Your task to perform on an android device: uninstall "Duolingo: language lessons" Image 0: 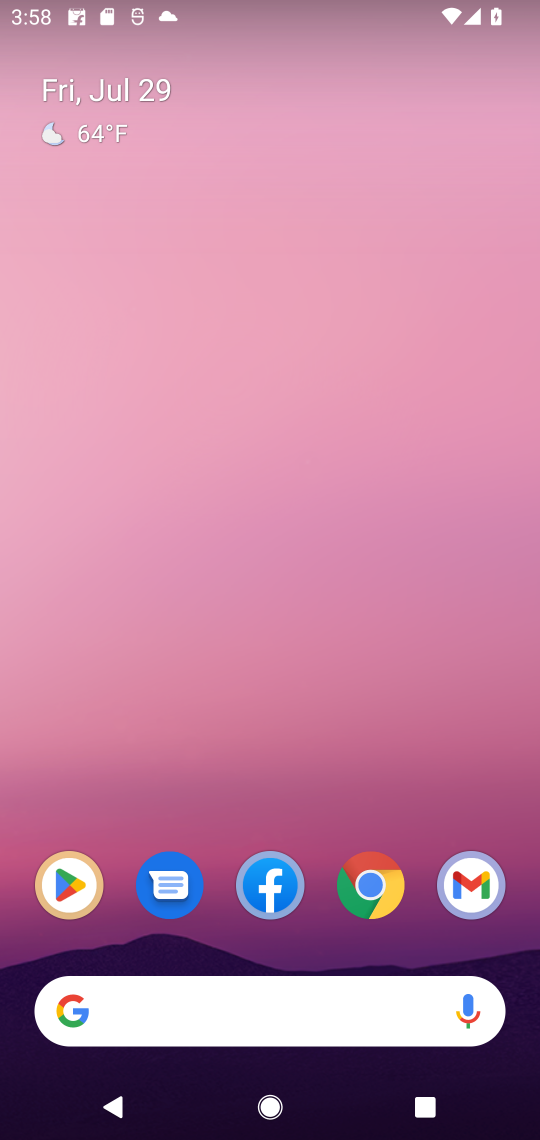
Step 0: click (67, 886)
Your task to perform on an android device: uninstall "Duolingo: language lessons" Image 1: 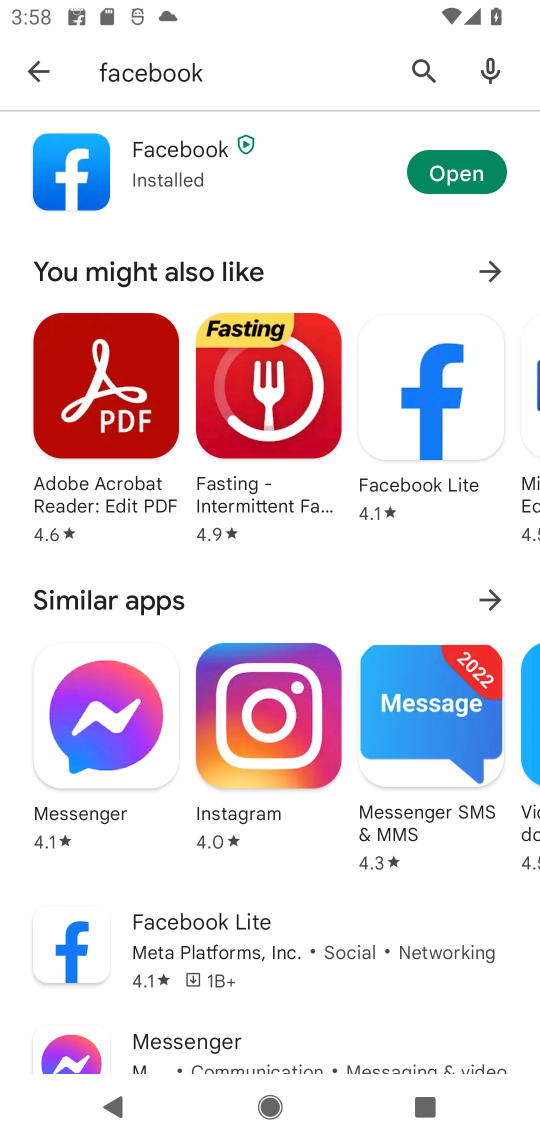
Step 1: click (422, 63)
Your task to perform on an android device: uninstall "Duolingo: language lessons" Image 2: 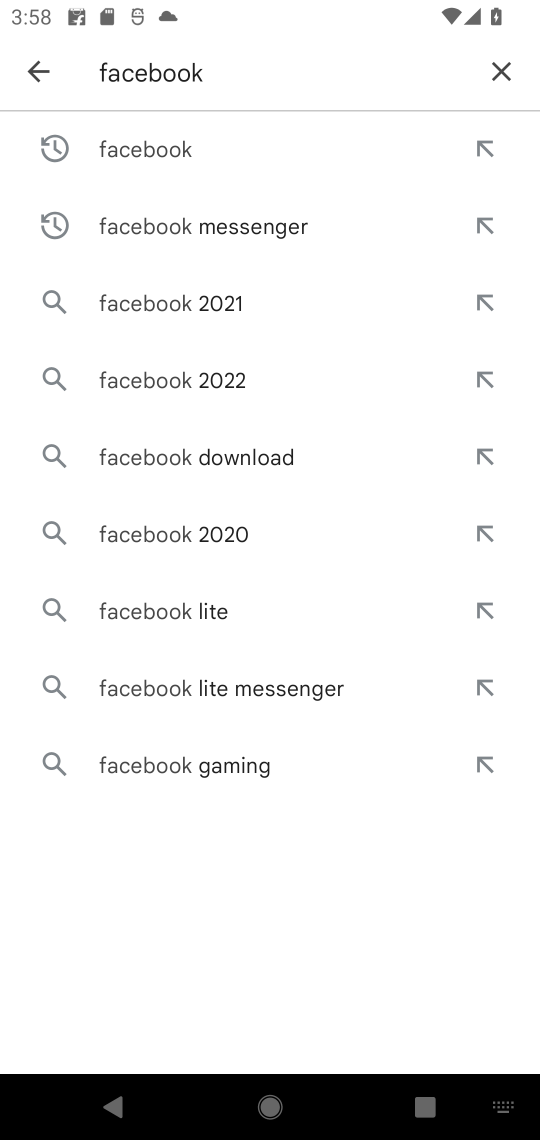
Step 2: click (512, 70)
Your task to perform on an android device: uninstall "Duolingo: language lessons" Image 3: 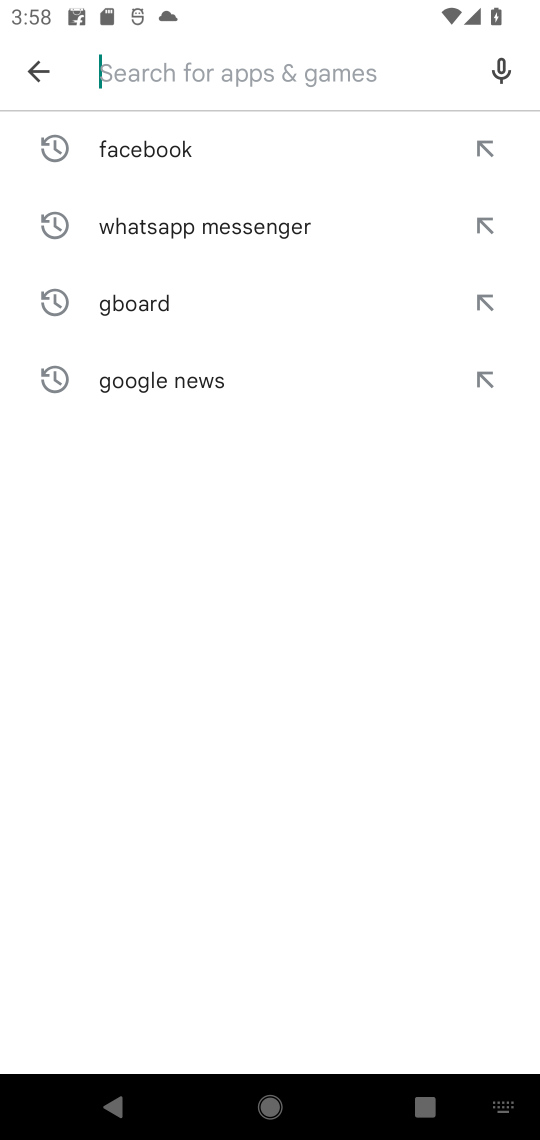
Step 3: type "Duolingo: language lessons""
Your task to perform on an android device: uninstall "Duolingo: language lessons" Image 4: 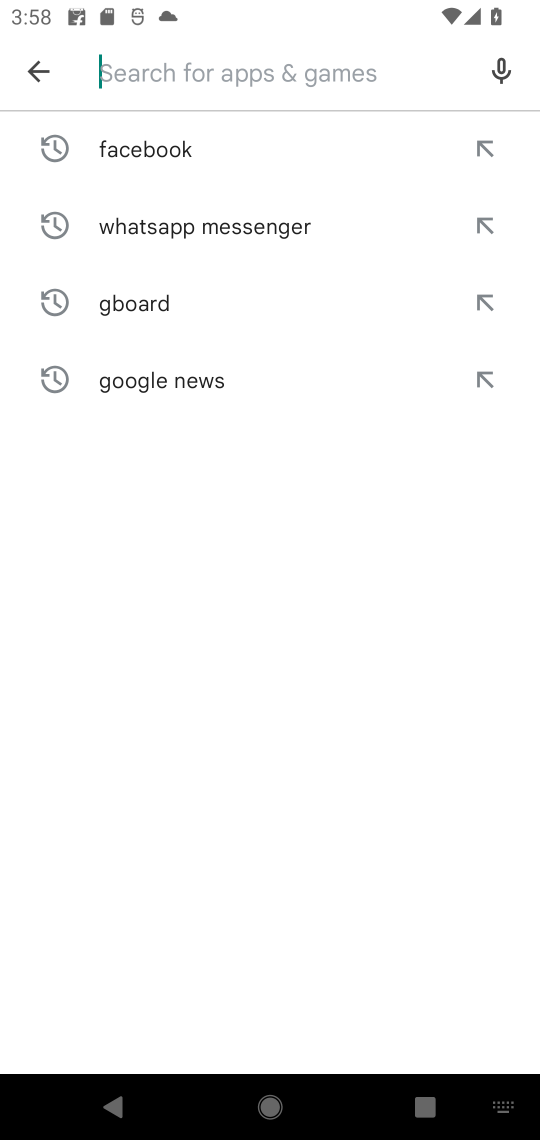
Step 4: click (214, 71)
Your task to perform on an android device: uninstall "Duolingo: language lessons" Image 5: 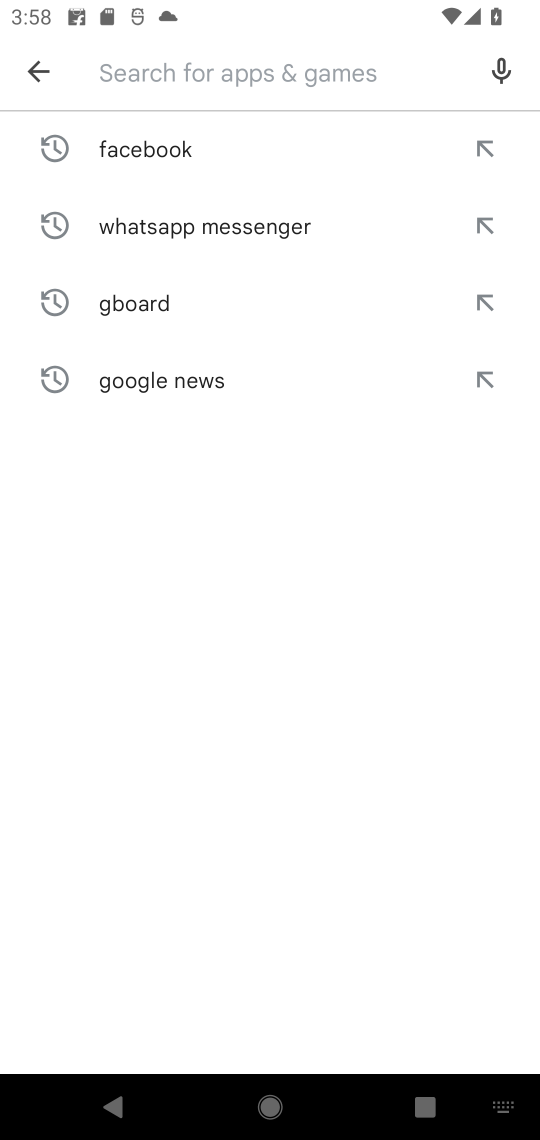
Step 5: type "Duolingo: language lessons""
Your task to perform on an android device: uninstall "Duolingo: language lessons" Image 6: 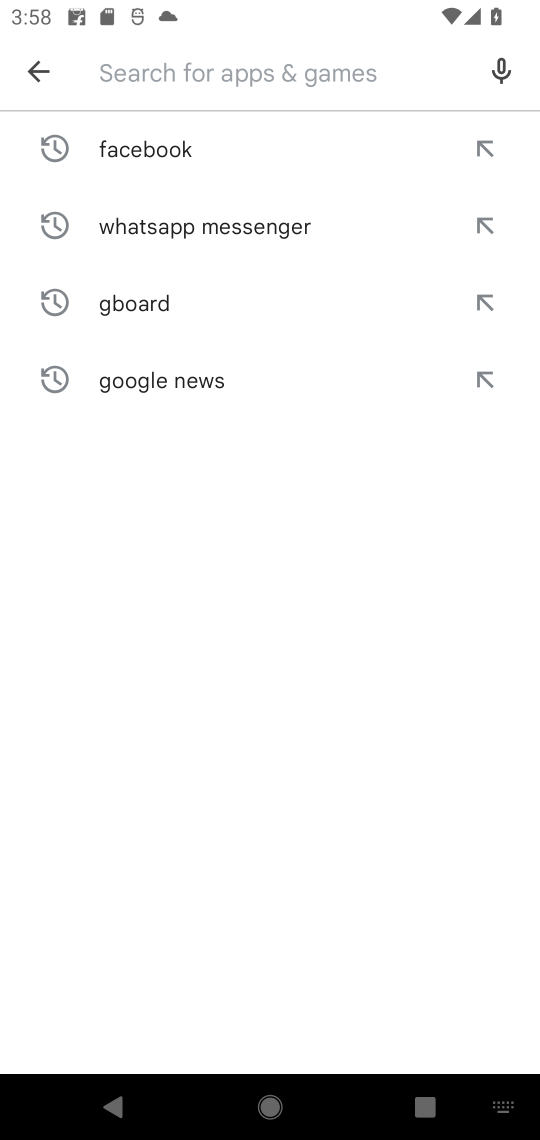
Step 6: type "Duolingo: language lessons"
Your task to perform on an android device: uninstall "Duolingo: language lessons" Image 7: 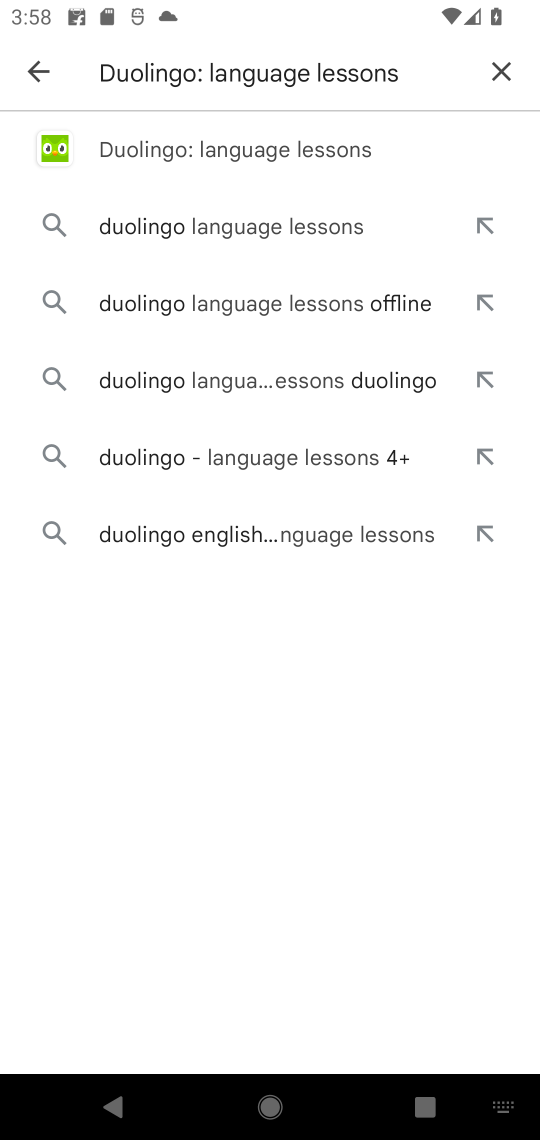
Step 7: click (261, 147)
Your task to perform on an android device: uninstall "Duolingo: language lessons" Image 8: 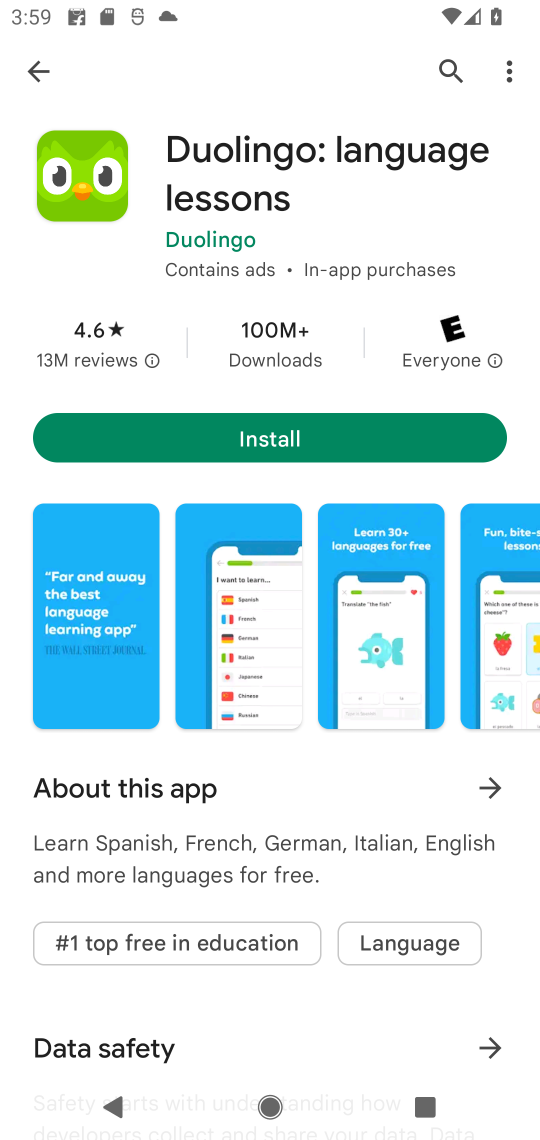
Step 8: task complete